Your task to perform on an android device: What's the weather? Image 0: 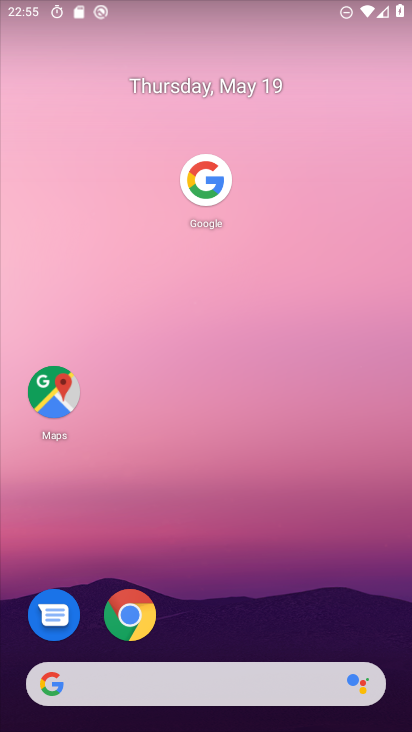
Step 0: drag from (261, 591) to (275, 65)
Your task to perform on an android device: What's the weather? Image 1: 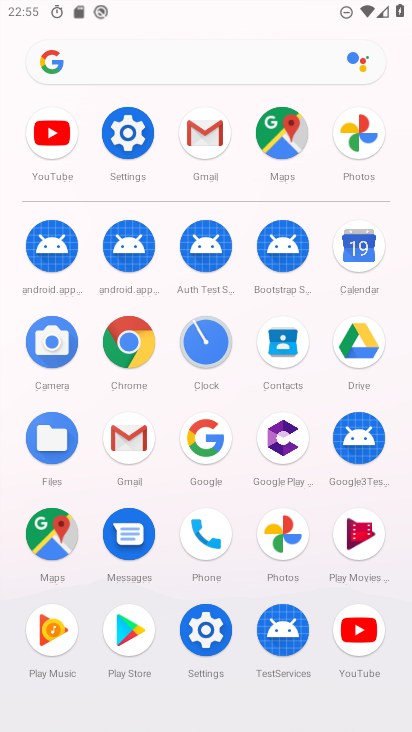
Step 1: click (213, 440)
Your task to perform on an android device: What's the weather? Image 2: 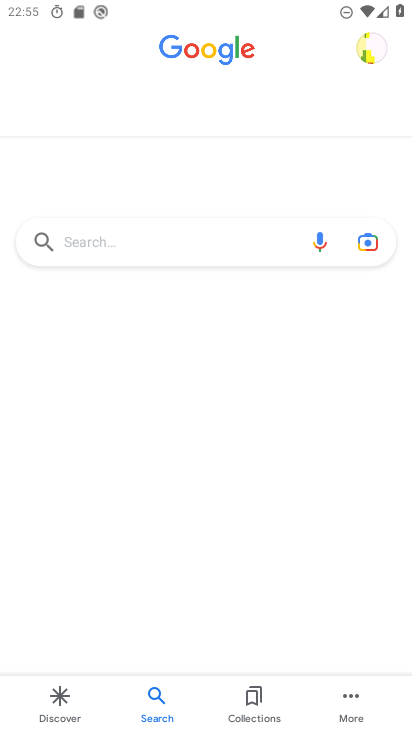
Step 2: click (125, 244)
Your task to perform on an android device: What's the weather? Image 3: 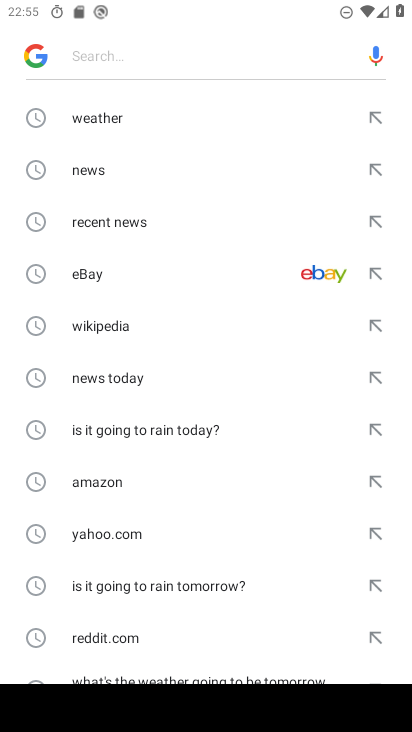
Step 3: click (121, 119)
Your task to perform on an android device: What's the weather? Image 4: 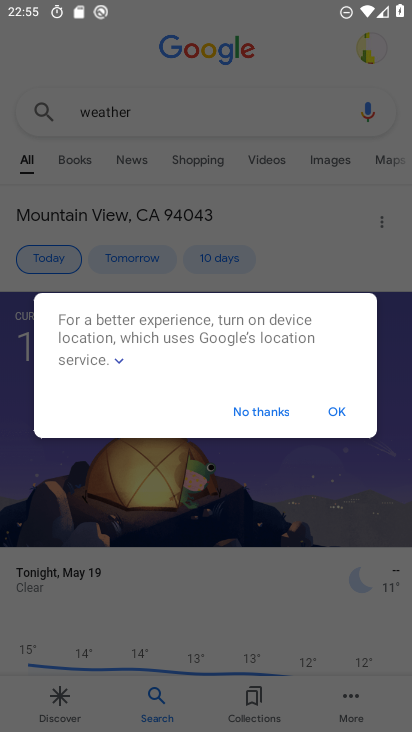
Step 4: click (287, 411)
Your task to perform on an android device: What's the weather? Image 5: 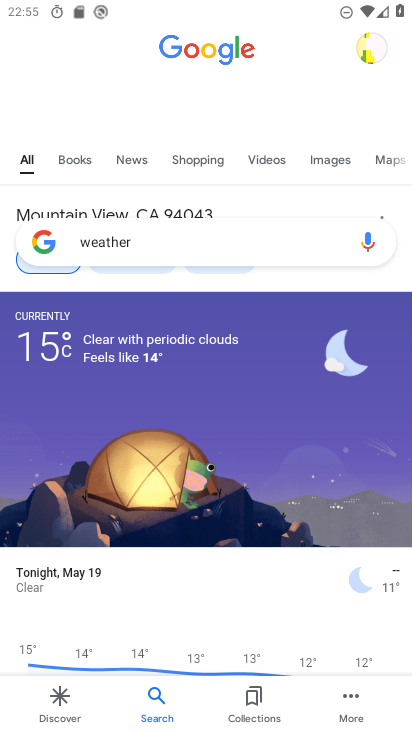
Step 5: task complete